Your task to perform on an android device: Go to Yahoo.com Image 0: 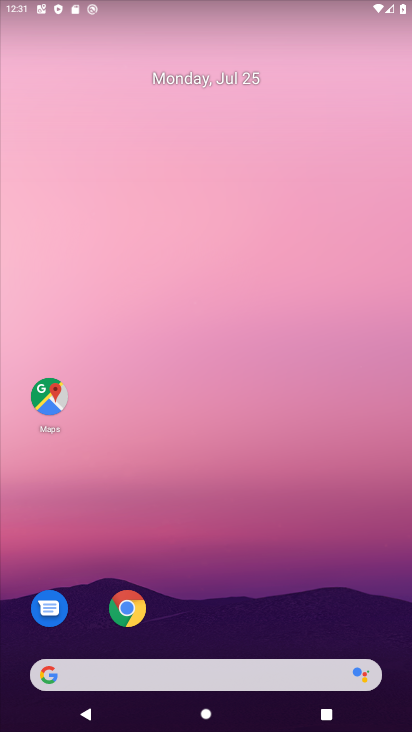
Step 0: click (116, 679)
Your task to perform on an android device: Go to Yahoo.com Image 1: 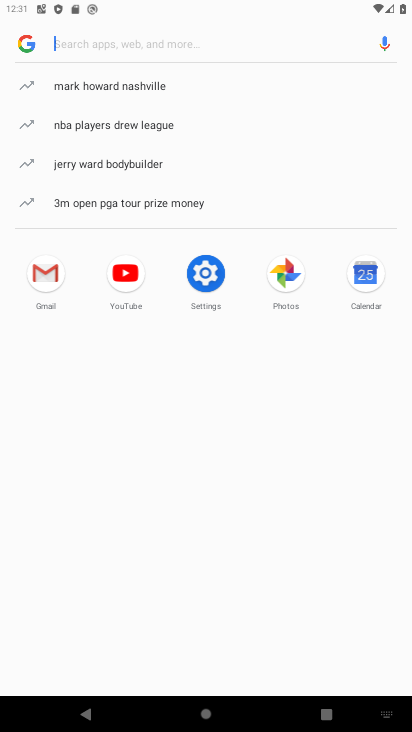
Step 1: click (98, 29)
Your task to perform on an android device: Go to Yahoo.com Image 2: 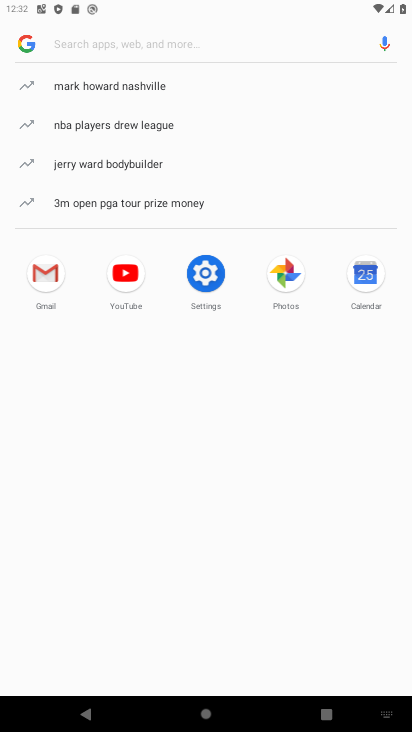
Step 2: type "yahoo.com"
Your task to perform on an android device: Go to Yahoo.com Image 3: 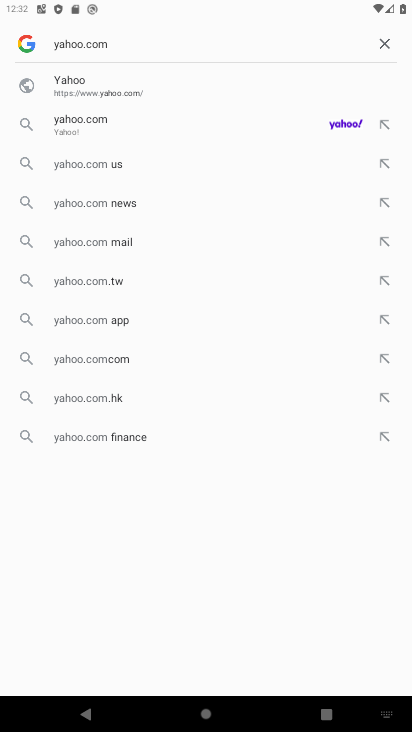
Step 3: click (64, 127)
Your task to perform on an android device: Go to Yahoo.com Image 4: 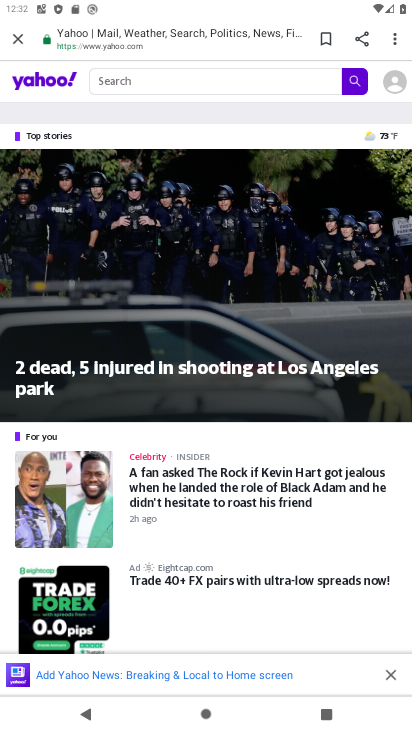
Step 4: task complete